Your task to perform on an android device: Open the camera Image 0: 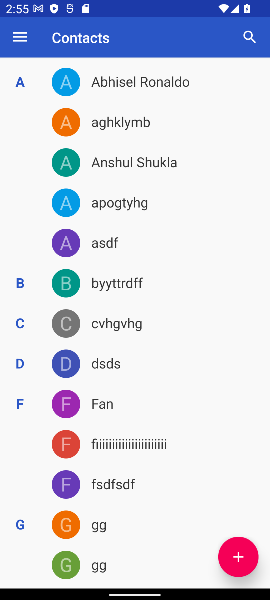
Step 0: press home button
Your task to perform on an android device: Open the camera Image 1: 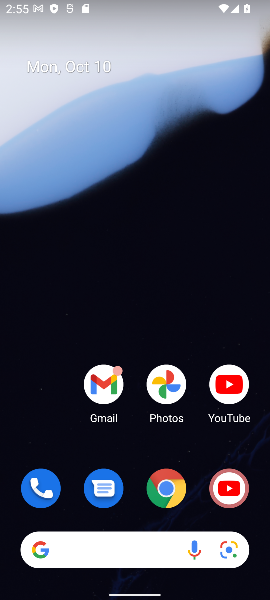
Step 1: drag from (59, 426) to (142, 12)
Your task to perform on an android device: Open the camera Image 2: 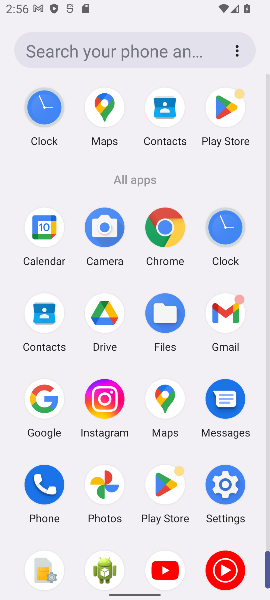
Step 2: click (109, 224)
Your task to perform on an android device: Open the camera Image 3: 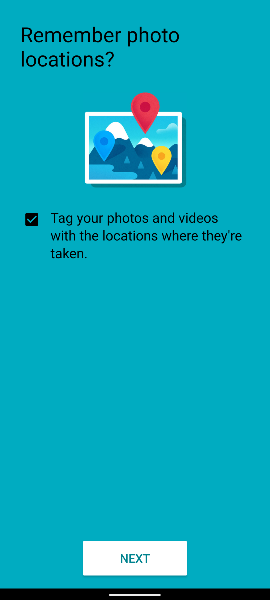
Step 3: click (126, 569)
Your task to perform on an android device: Open the camera Image 4: 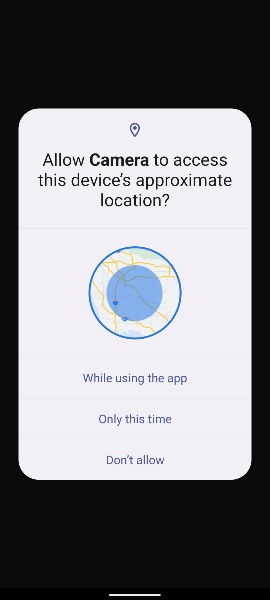
Step 4: task complete